Your task to perform on an android device: Open Reddit.com Image 0: 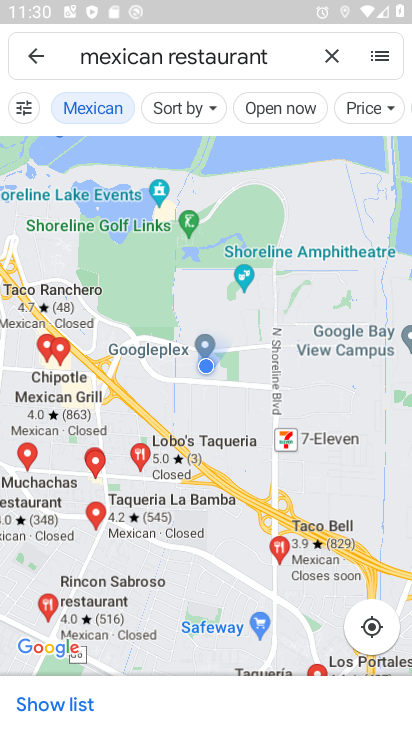
Step 0: press home button
Your task to perform on an android device: Open Reddit.com Image 1: 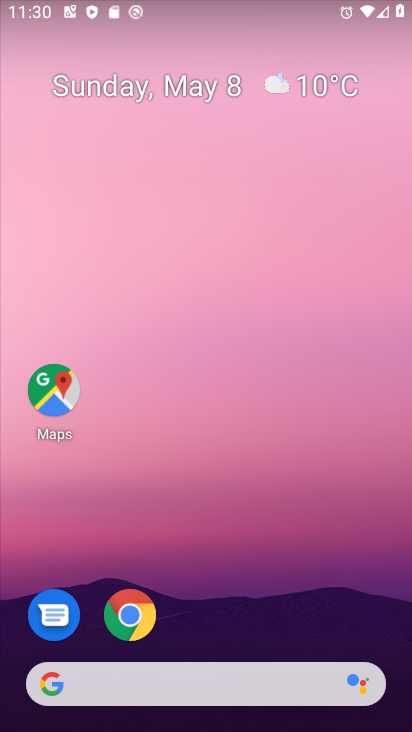
Step 1: drag from (340, 709) to (262, 463)
Your task to perform on an android device: Open Reddit.com Image 2: 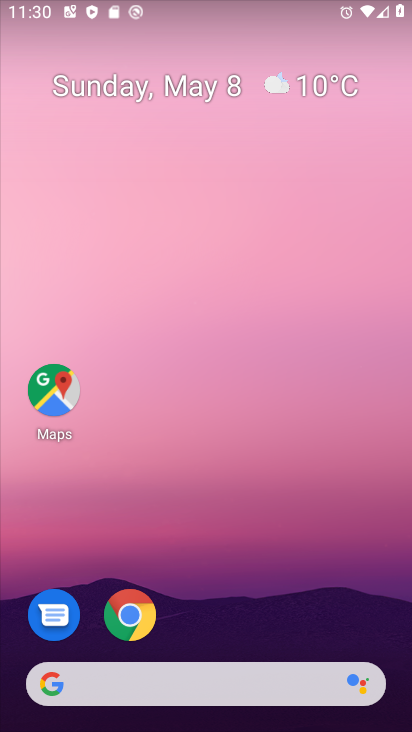
Step 2: drag from (274, 726) to (340, 222)
Your task to perform on an android device: Open Reddit.com Image 3: 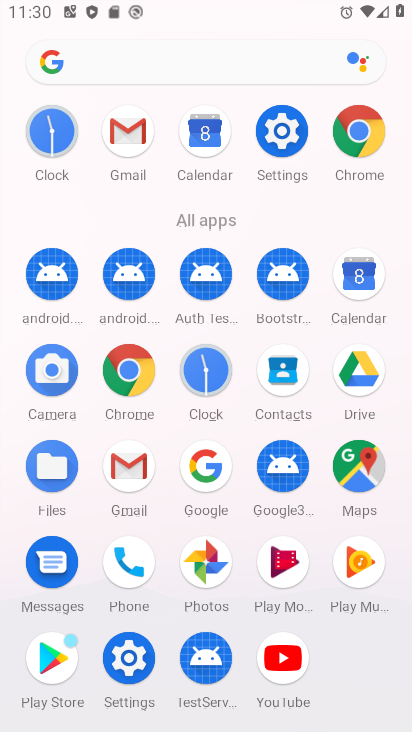
Step 3: click (348, 152)
Your task to perform on an android device: Open Reddit.com Image 4: 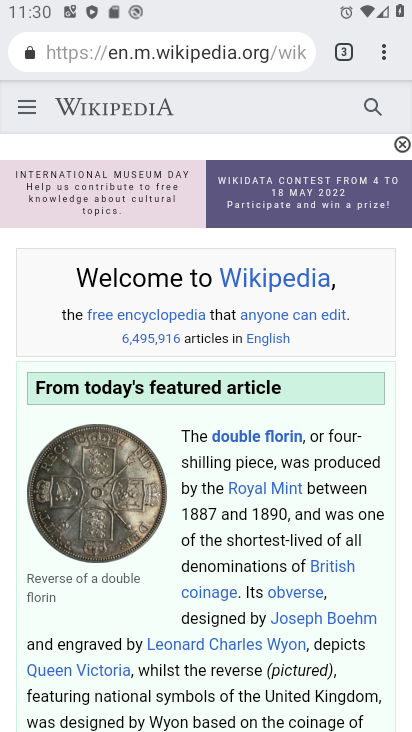
Step 4: click (164, 68)
Your task to perform on an android device: Open Reddit.com Image 5: 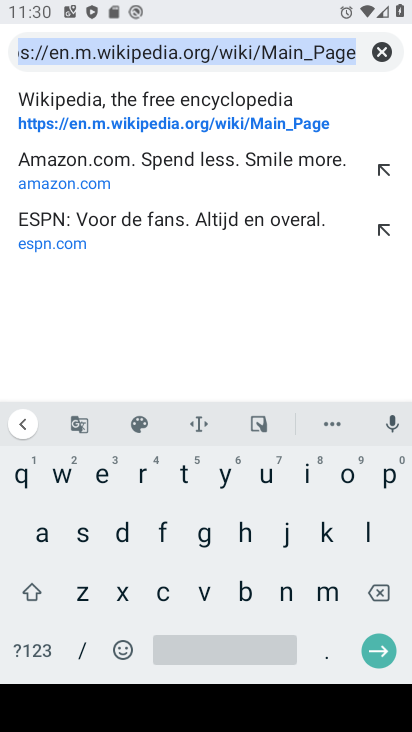
Step 5: click (373, 49)
Your task to perform on an android device: Open Reddit.com Image 6: 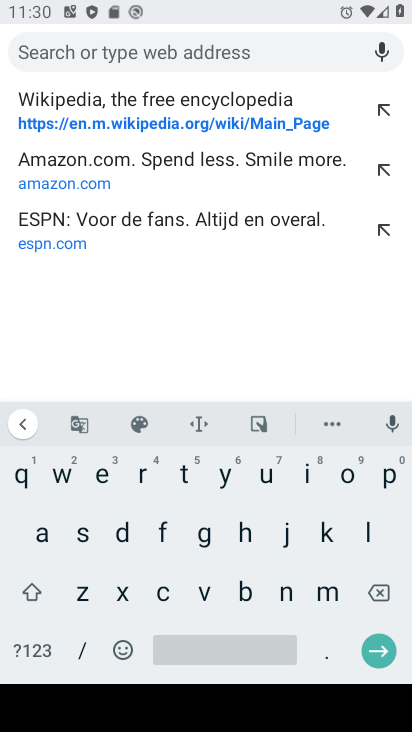
Step 6: click (135, 481)
Your task to perform on an android device: Open Reddit.com Image 7: 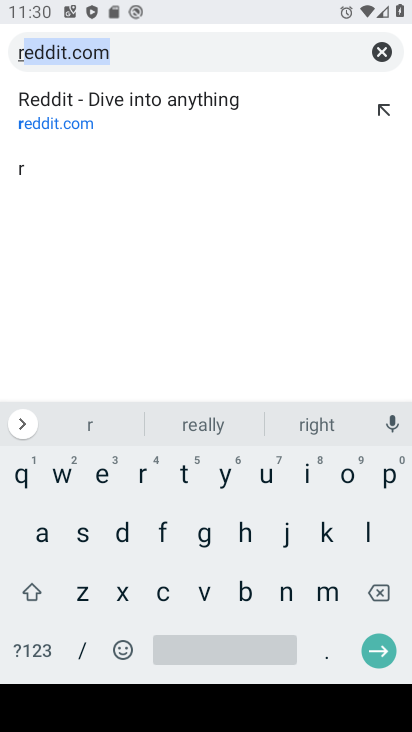
Step 7: click (97, 479)
Your task to perform on an android device: Open Reddit.com Image 8: 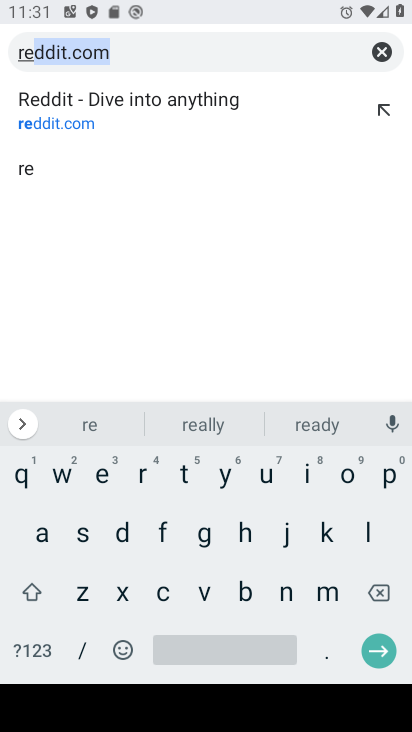
Step 8: click (133, 55)
Your task to perform on an android device: Open Reddit.com Image 9: 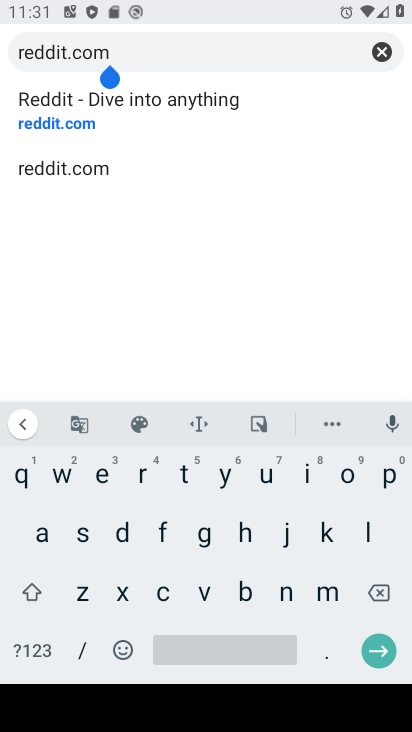
Step 9: click (379, 654)
Your task to perform on an android device: Open Reddit.com Image 10: 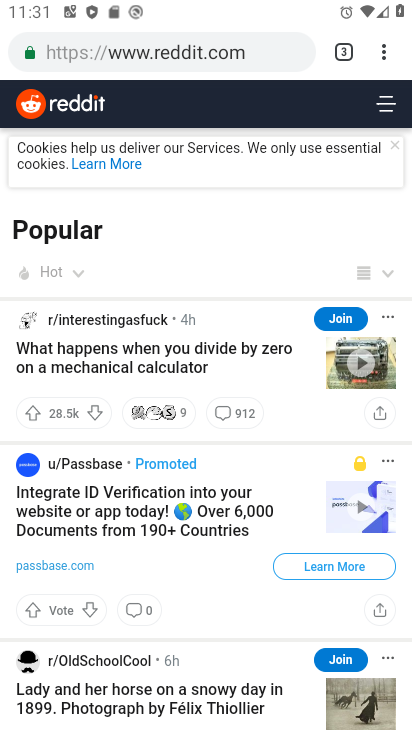
Step 10: task complete